Your task to perform on an android device: Check the weather Image 0: 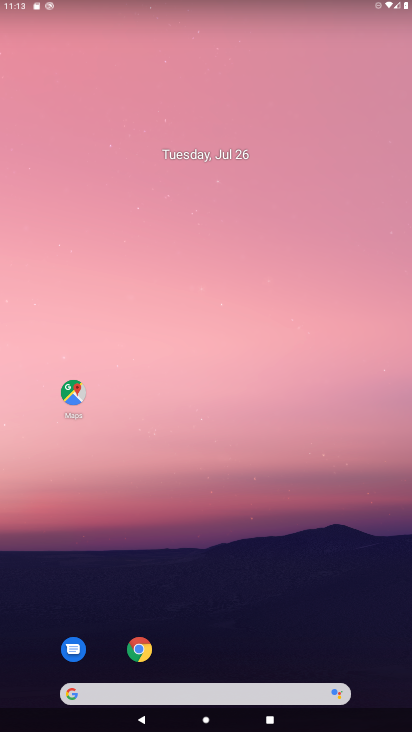
Step 0: drag from (202, 674) to (190, 345)
Your task to perform on an android device: Check the weather Image 1: 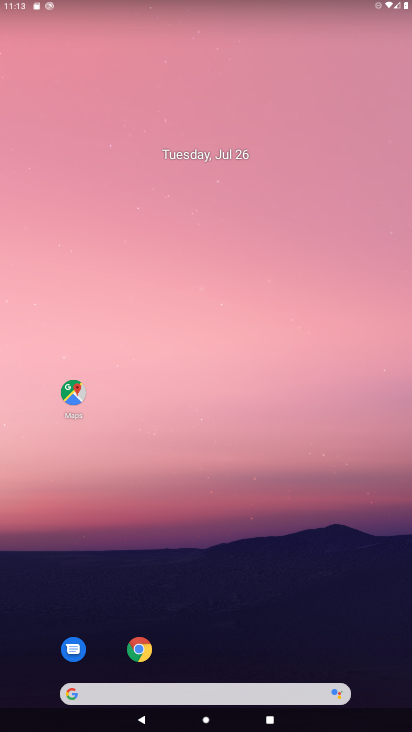
Step 1: drag from (184, 613) to (188, 256)
Your task to perform on an android device: Check the weather Image 2: 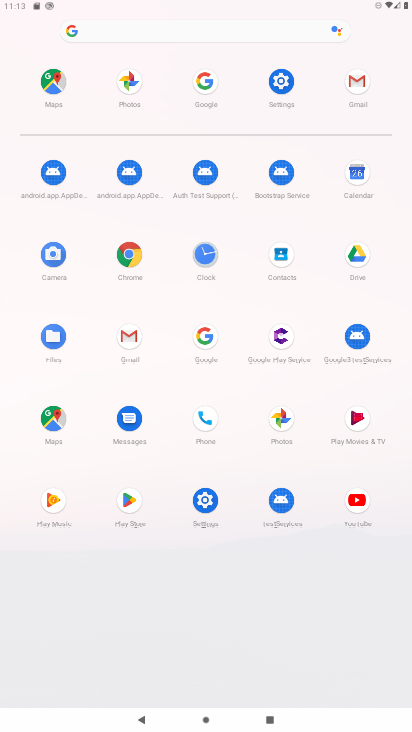
Step 2: click (210, 341)
Your task to perform on an android device: Check the weather Image 3: 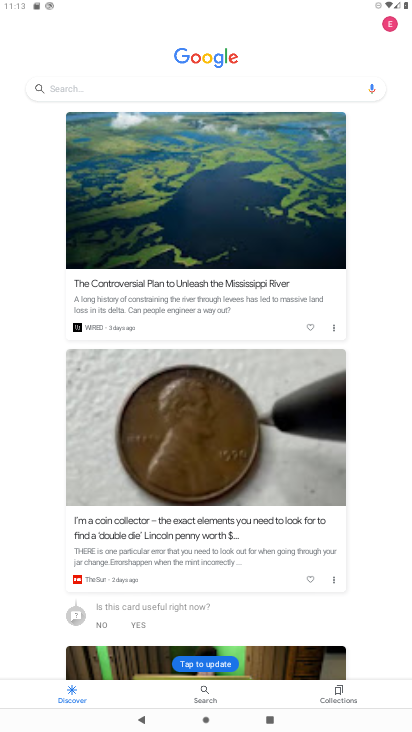
Step 3: click (70, 91)
Your task to perform on an android device: Check the weather Image 4: 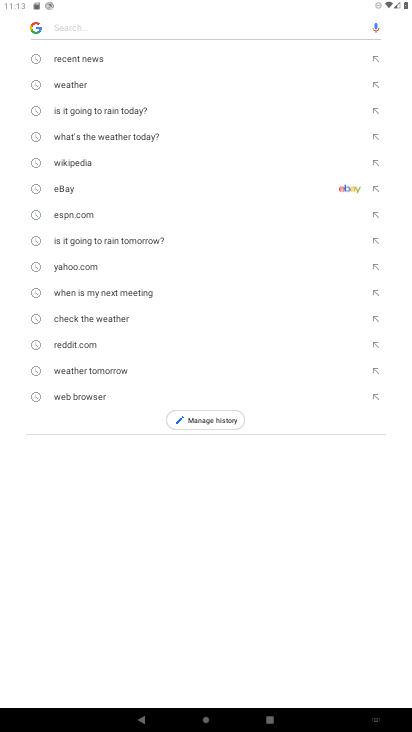
Step 4: click (80, 85)
Your task to perform on an android device: Check the weather Image 5: 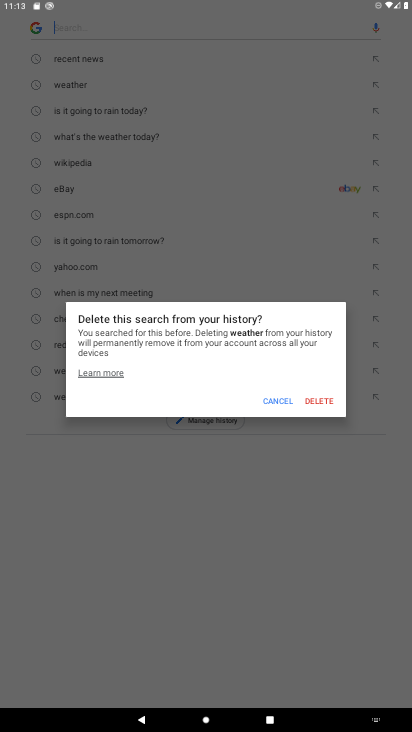
Step 5: click (282, 405)
Your task to perform on an android device: Check the weather Image 6: 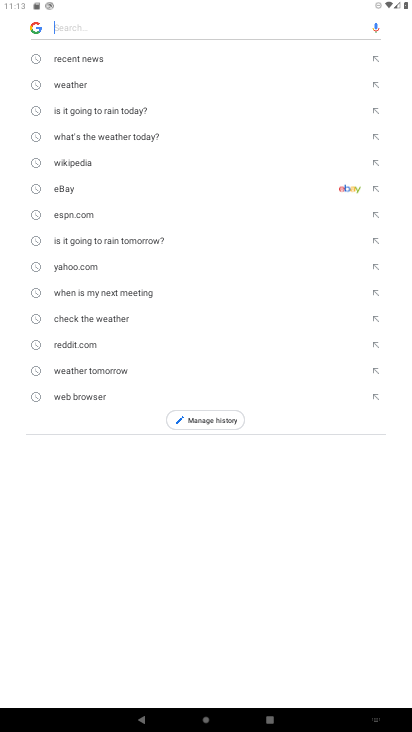
Step 6: click (83, 88)
Your task to perform on an android device: Check the weather Image 7: 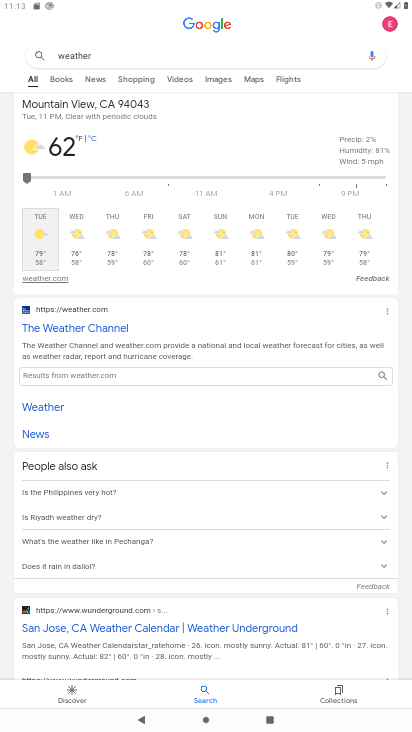
Step 7: task complete